Your task to perform on an android device: Open location settings Image 0: 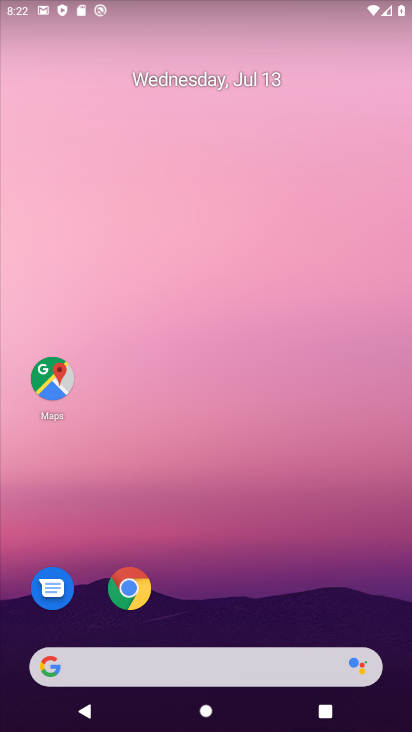
Step 0: drag from (216, 619) to (198, 95)
Your task to perform on an android device: Open location settings Image 1: 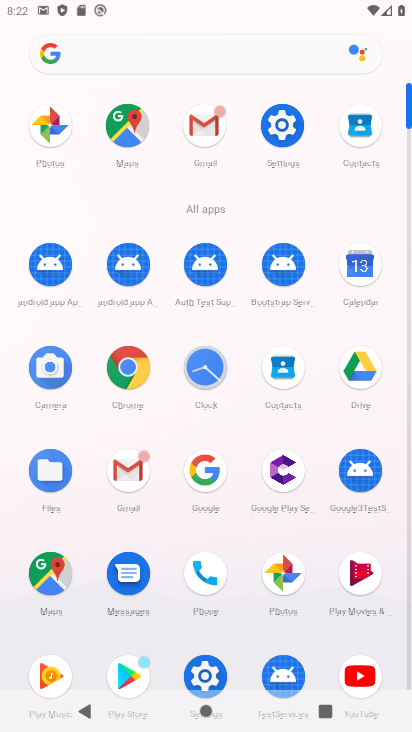
Step 1: click (282, 126)
Your task to perform on an android device: Open location settings Image 2: 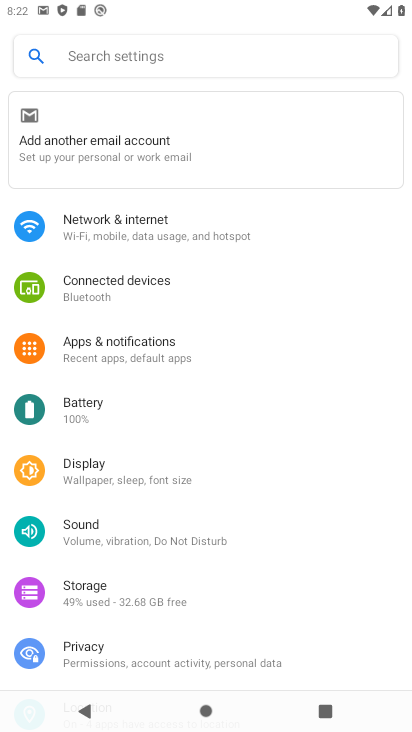
Step 2: drag from (193, 603) to (155, 227)
Your task to perform on an android device: Open location settings Image 3: 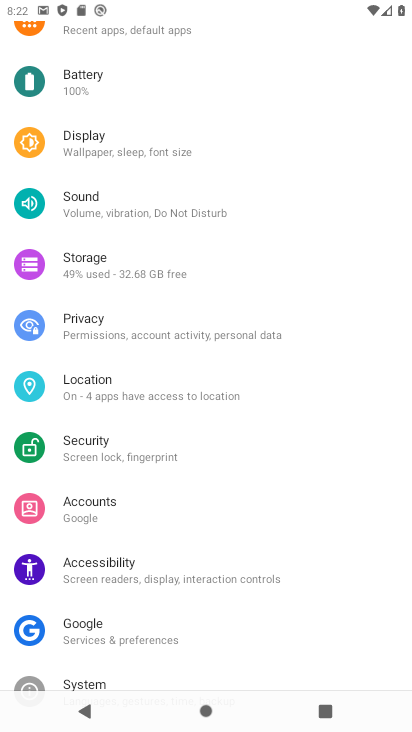
Step 3: click (121, 385)
Your task to perform on an android device: Open location settings Image 4: 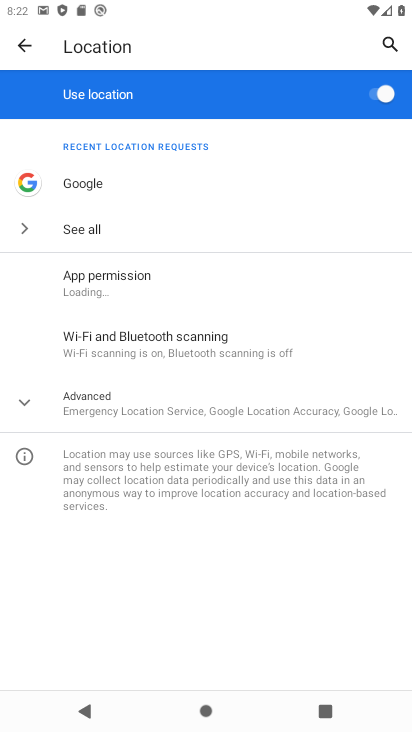
Step 4: task complete